Your task to perform on an android device: turn pop-ups on in chrome Image 0: 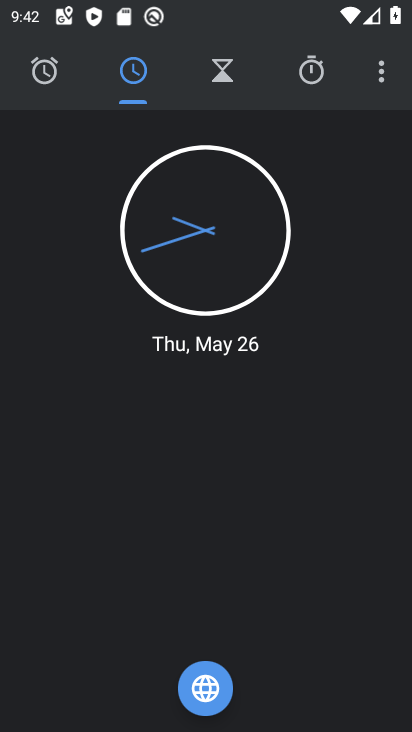
Step 0: press home button
Your task to perform on an android device: turn pop-ups on in chrome Image 1: 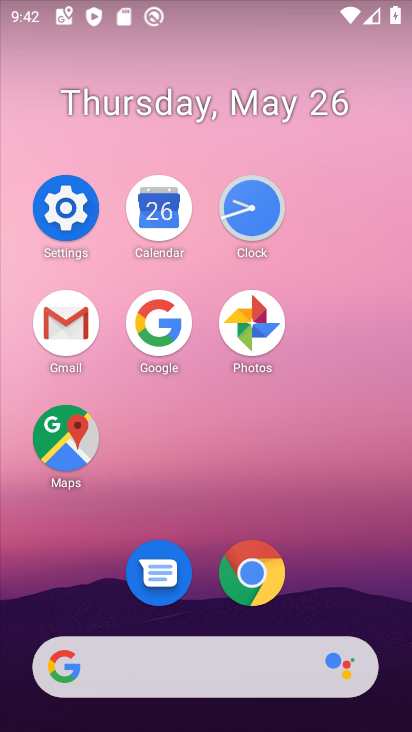
Step 1: click (244, 570)
Your task to perform on an android device: turn pop-ups on in chrome Image 2: 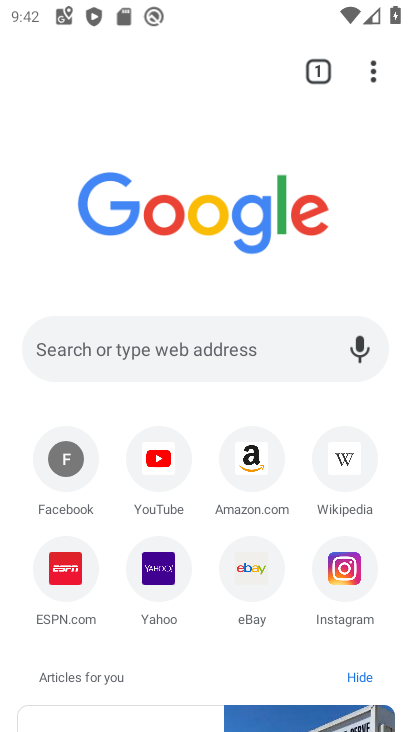
Step 2: click (363, 71)
Your task to perform on an android device: turn pop-ups on in chrome Image 3: 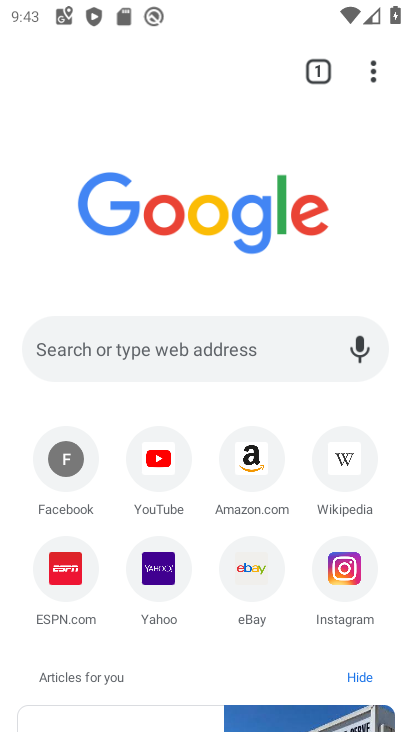
Step 3: click (386, 59)
Your task to perform on an android device: turn pop-ups on in chrome Image 4: 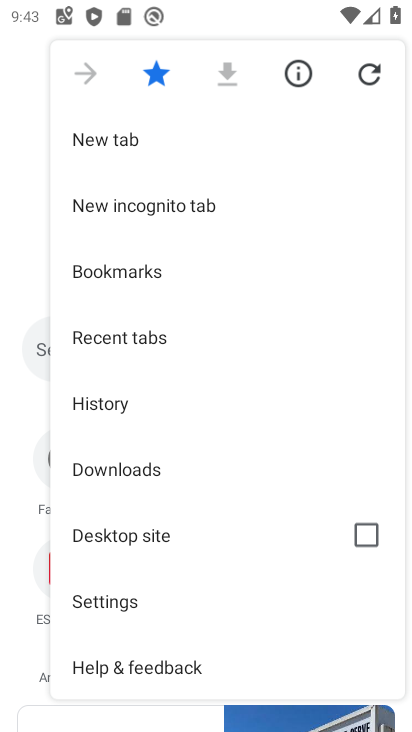
Step 4: drag from (287, 461) to (286, 65)
Your task to perform on an android device: turn pop-ups on in chrome Image 5: 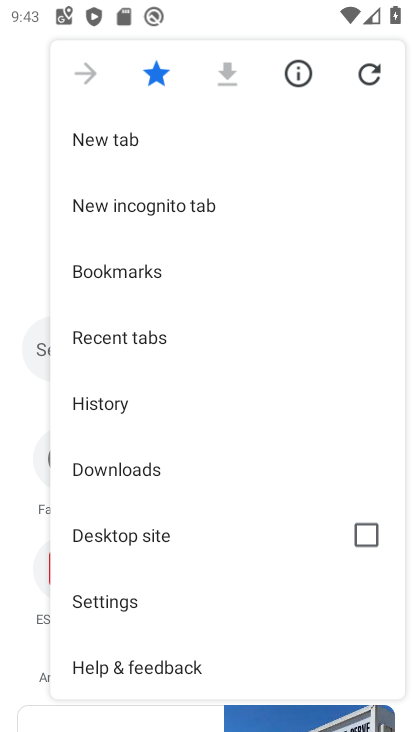
Step 5: click (194, 596)
Your task to perform on an android device: turn pop-ups on in chrome Image 6: 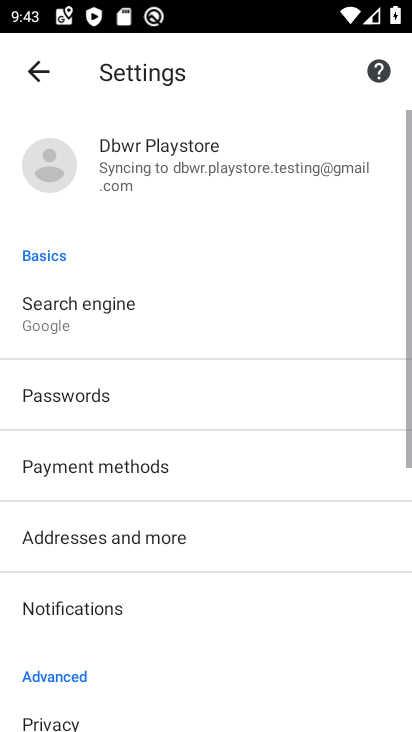
Step 6: drag from (193, 595) to (210, 154)
Your task to perform on an android device: turn pop-ups on in chrome Image 7: 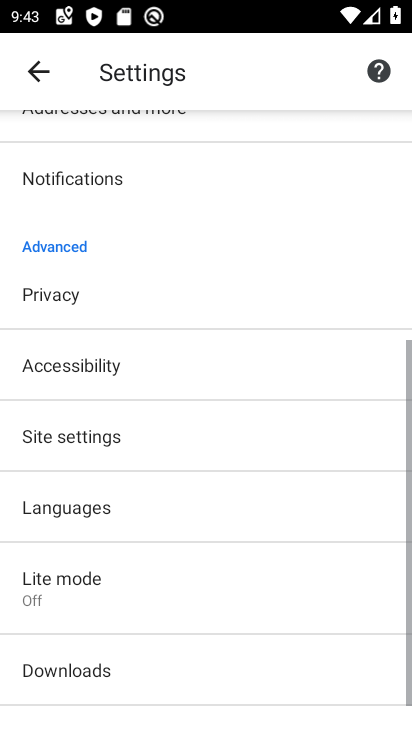
Step 7: click (121, 459)
Your task to perform on an android device: turn pop-ups on in chrome Image 8: 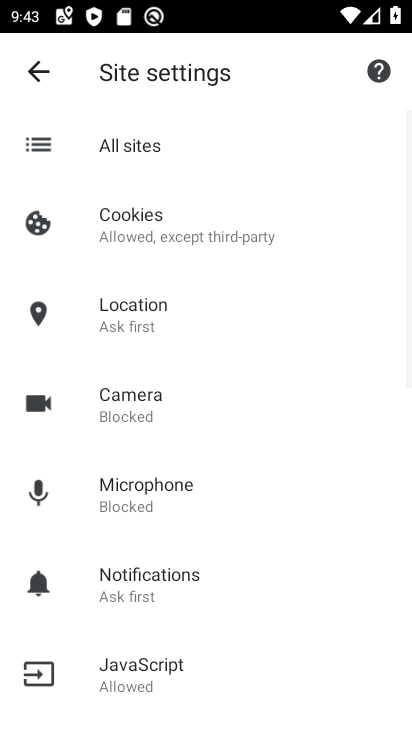
Step 8: drag from (196, 652) to (239, 269)
Your task to perform on an android device: turn pop-ups on in chrome Image 9: 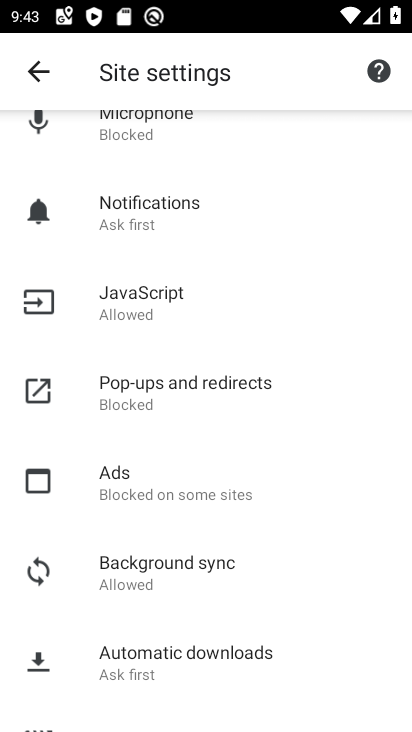
Step 9: drag from (208, 619) to (217, 260)
Your task to perform on an android device: turn pop-ups on in chrome Image 10: 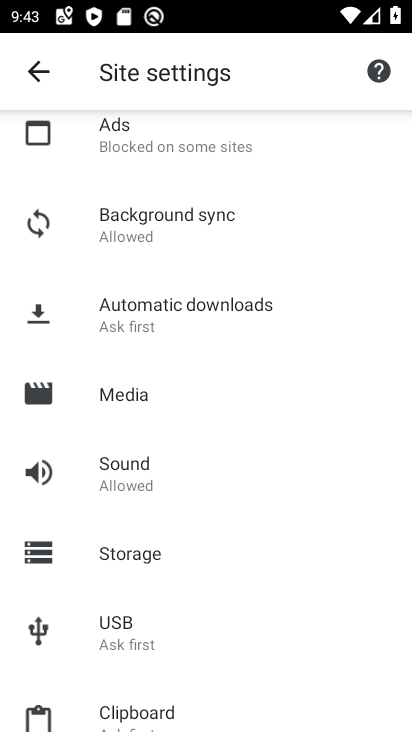
Step 10: drag from (184, 191) to (223, 455)
Your task to perform on an android device: turn pop-ups on in chrome Image 11: 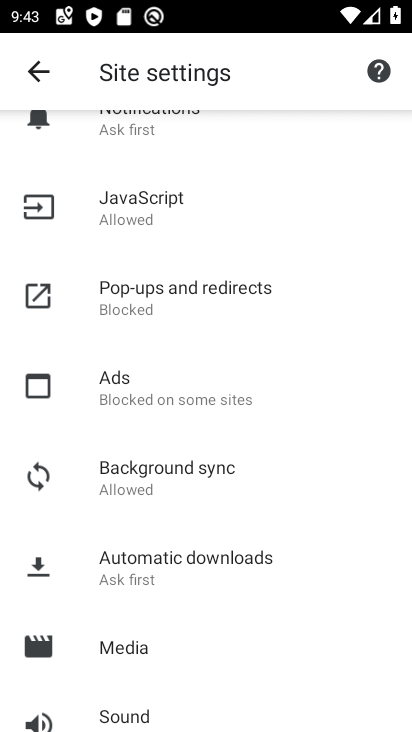
Step 11: click (190, 310)
Your task to perform on an android device: turn pop-ups on in chrome Image 12: 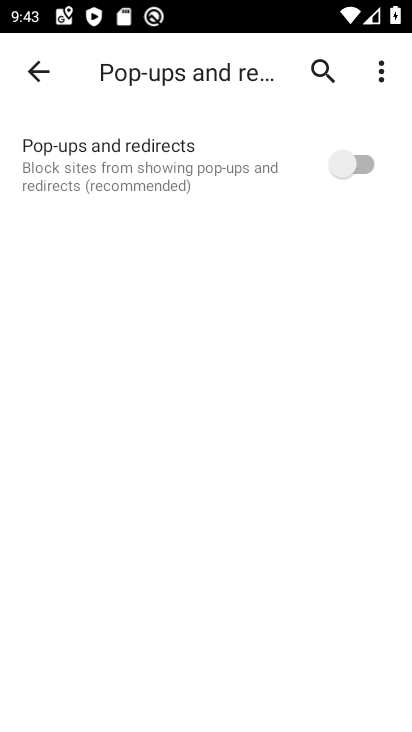
Step 12: click (355, 158)
Your task to perform on an android device: turn pop-ups on in chrome Image 13: 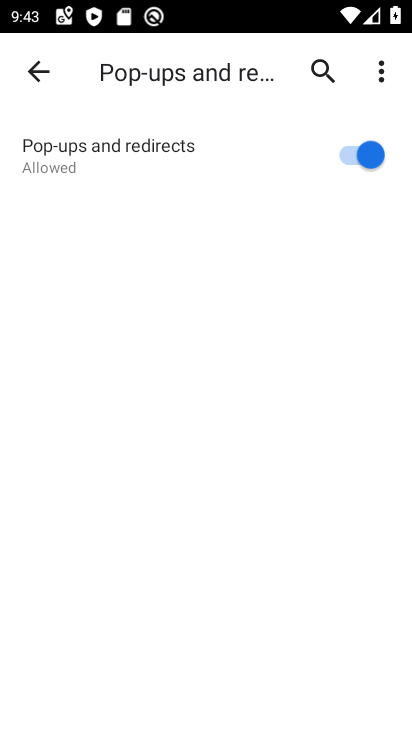
Step 13: task complete